Your task to perform on an android device: turn off priority inbox in the gmail app Image 0: 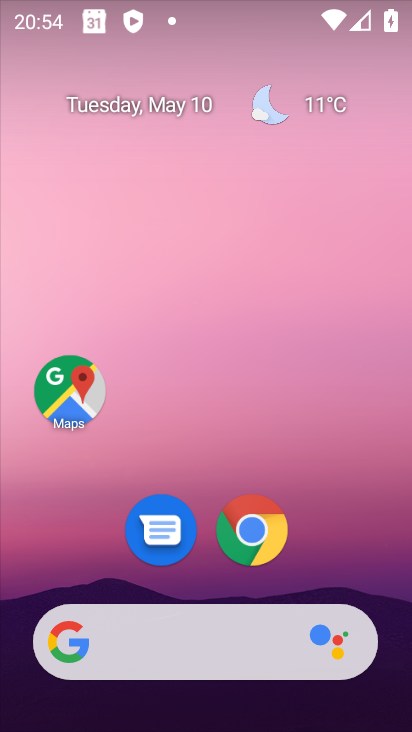
Step 0: drag from (323, 492) to (360, 112)
Your task to perform on an android device: turn off priority inbox in the gmail app Image 1: 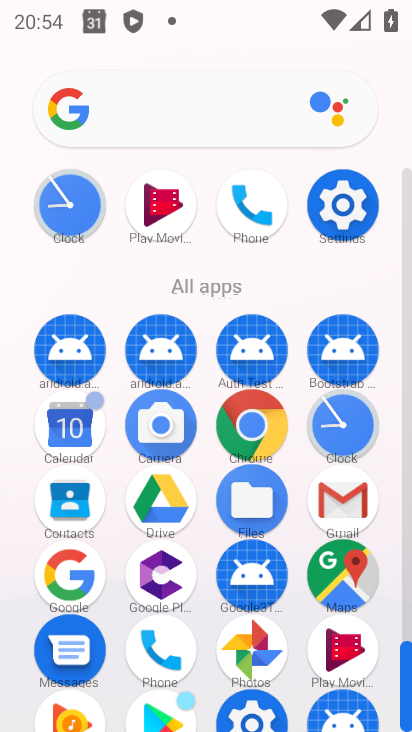
Step 1: click (319, 516)
Your task to perform on an android device: turn off priority inbox in the gmail app Image 2: 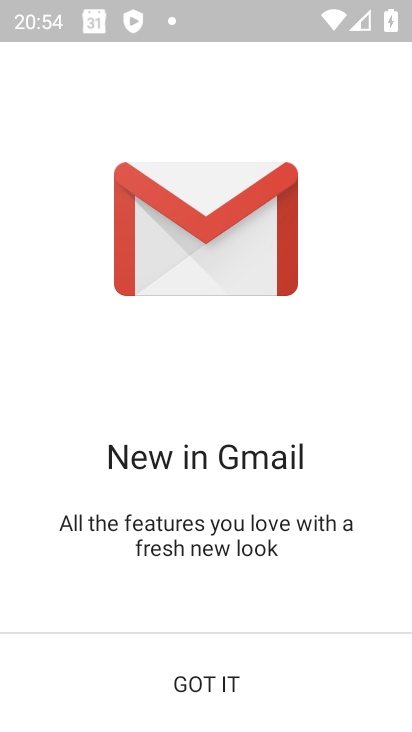
Step 2: click (176, 694)
Your task to perform on an android device: turn off priority inbox in the gmail app Image 3: 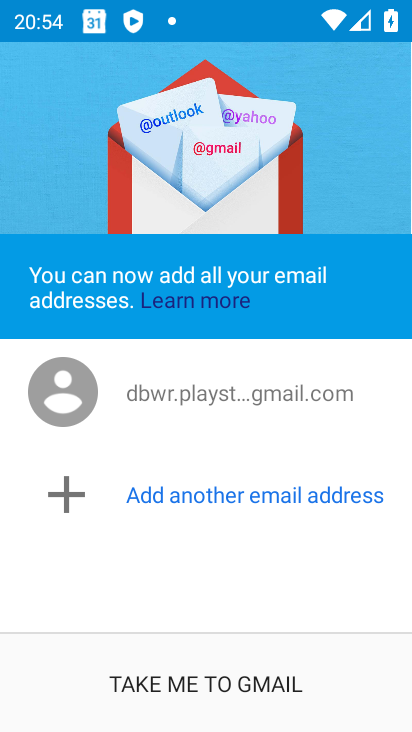
Step 3: click (214, 692)
Your task to perform on an android device: turn off priority inbox in the gmail app Image 4: 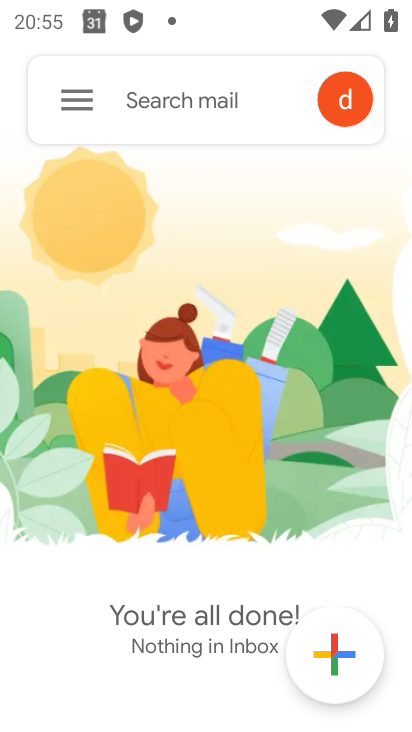
Step 4: click (63, 105)
Your task to perform on an android device: turn off priority inbox in the gmail app Image 5: 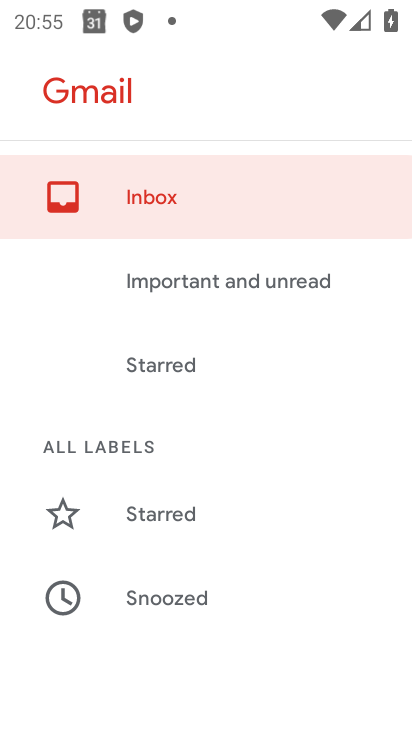
Step 5: drag from (177, 631) to (205, 189)
Your task to perform on an android device: turn off priority inbox in the gmail app Image 6: 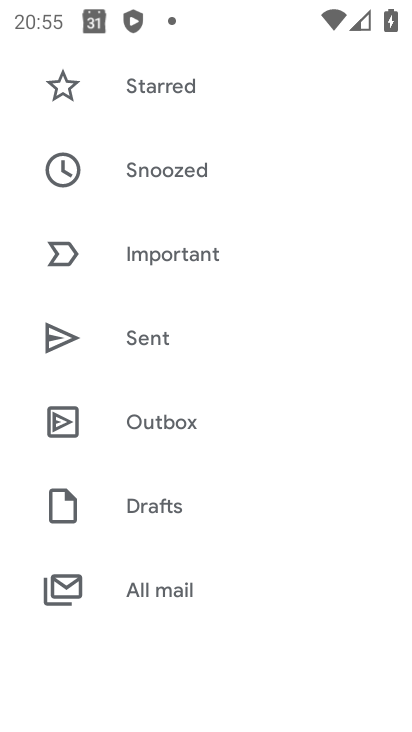
Step 6: drag from (229, 590) to (273, 133)
Your task to perform on an android device: turn off priority inbox in the gmail app Image 7: 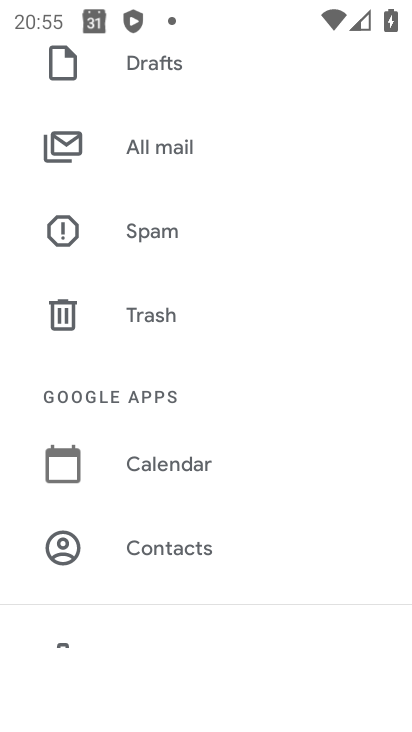
Step 7: drag from (231, 590) to (268, 206)
Your task to perform on an android device: turn off priority inbox in the gmail app Image 8: 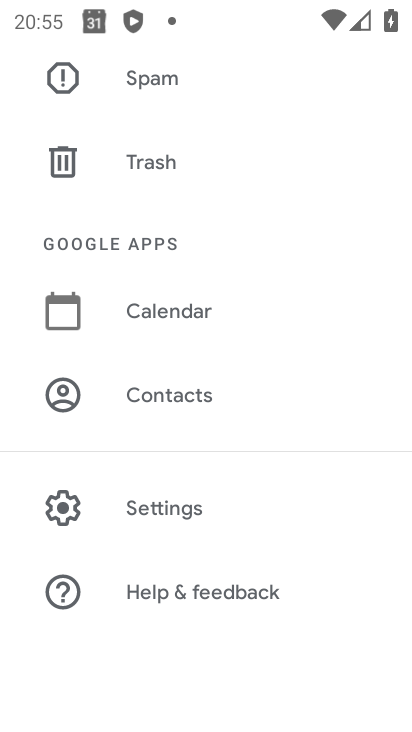
Step 8: click (198, 506)
Your task to perform on an android device: turn off priority inbox in the gmail app Image 9: 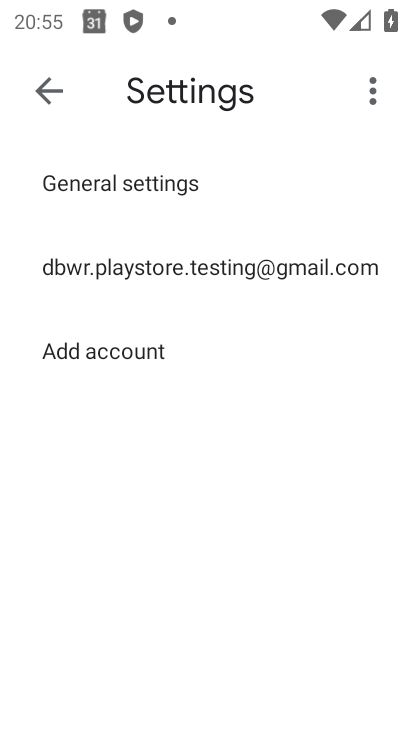
Step 9: click (221, 264)
Your task to perform on an android device: turn off priority inbox in the gmail app Image 10: 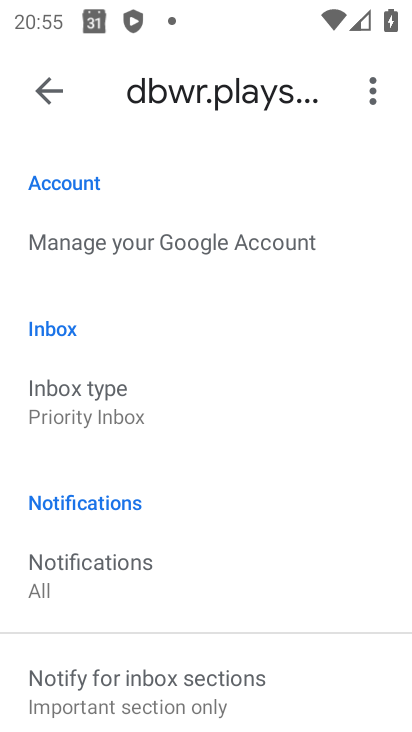
Step 10: task complete